Your task to perform on an android device: stop showing notifications on the lock screen Image 0: 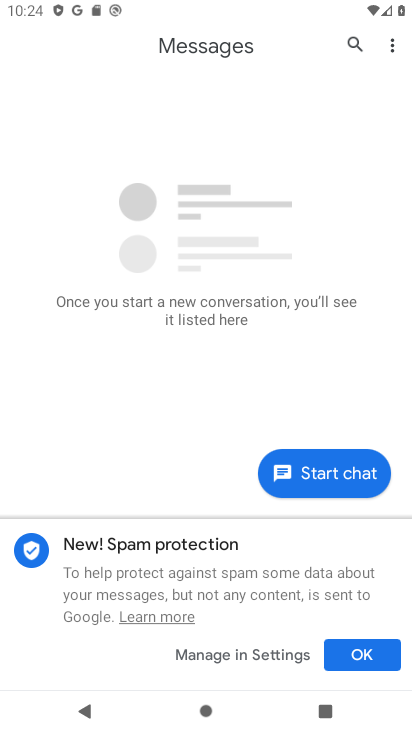
Step 0: press home button
Your task to perform on an android device: stop showing notifications on the lock screen Image 1: 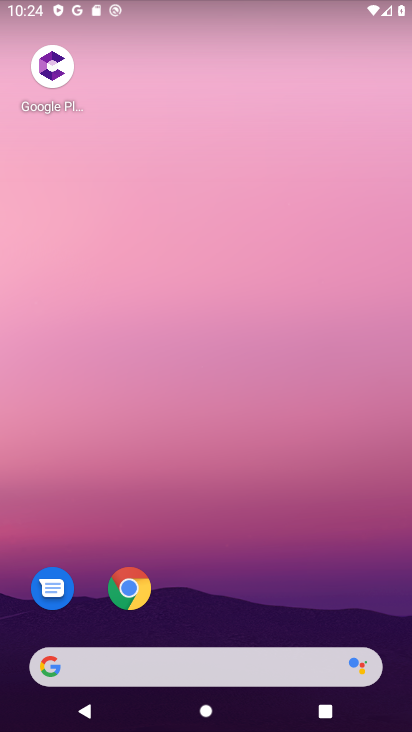
Step 1: drag from (352, 625) to (292, 187)
Your task to perform on an android device: stop showing notifications on the lock screen Image 2: 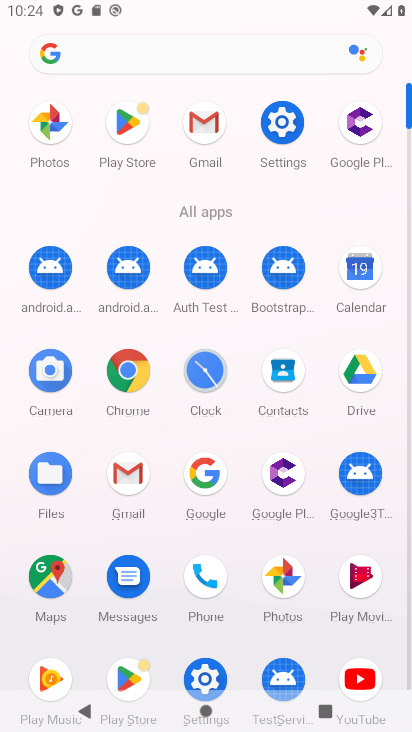
Step 2: click (204, 675)
Your task to perform on an android device: stop showing notifications on the lock screen Image 3: 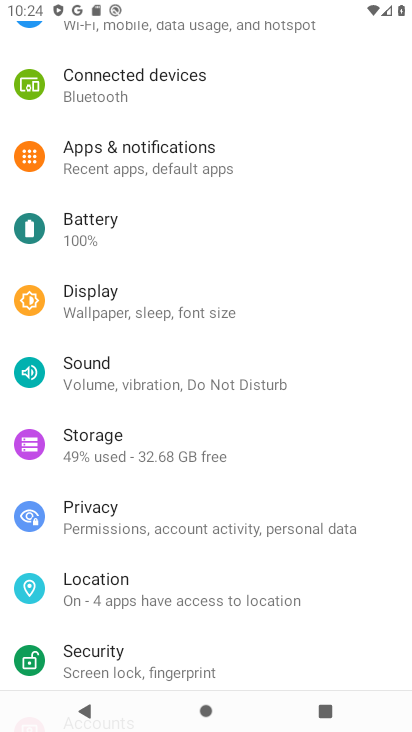
Step 3: click (127, 164)
Your task to perform on an android device: stop showing notifications on the lock screen Image 4: 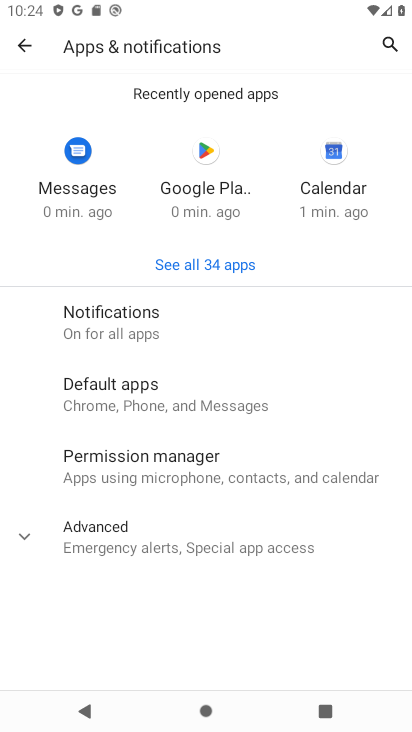
Step 4: click (113, 314)
Your task to perform on an android device: stop showing notifications on the lock screen Image 5: 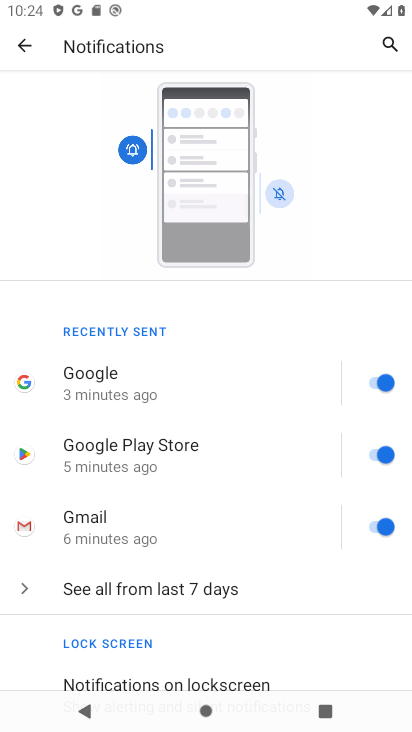
Step 5: drag from (214, 631) to (210, 301)
Your task to perform on an android device: stop showing notifications on the lock screen Image 6: 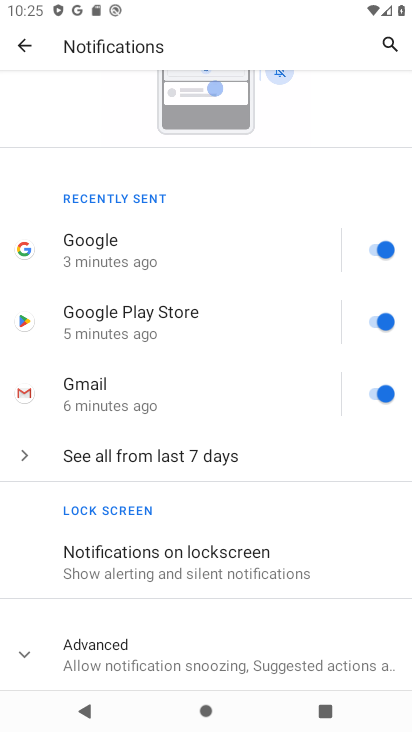
Step 6: click (156, 572)
Your task to perform on an android device: stop showing notifications on the lock screen Image 7: 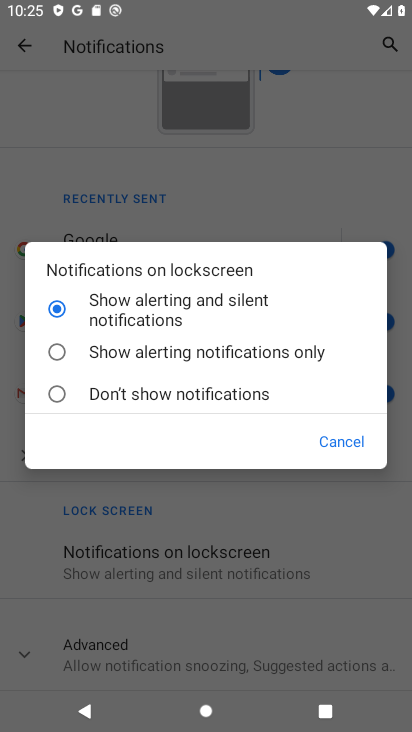
Step 7: click (57, 391)
Your task to perform on an android device: stop showing notifications on the lock screen Image 8: 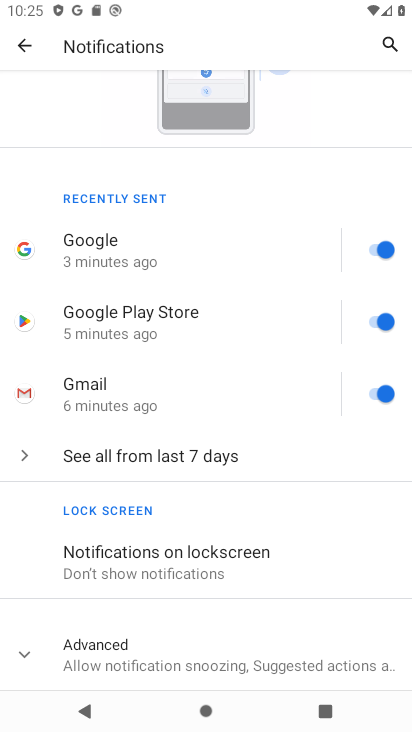
Step 8: task complete